Your task to perform on an android device: turn on data saver in the chrome app Image 0: 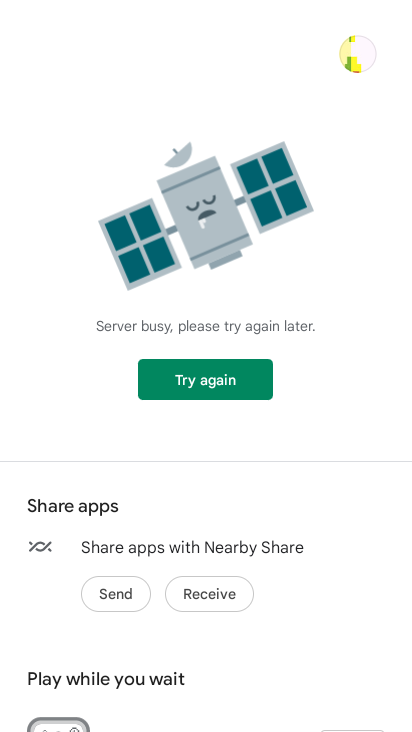
Step 0: press home button
Your task to perform on an android device: turn on data saver in the chrome app Image 1: 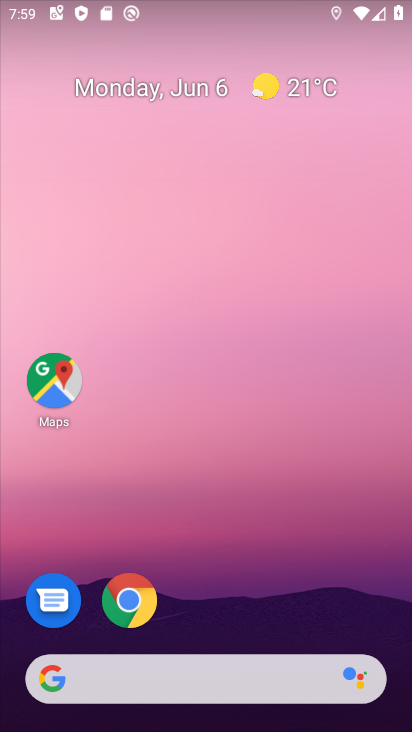
Step 1: click (128, 602)
Your task to perform on an android device: turn on data saver in the chrome app Image 2: 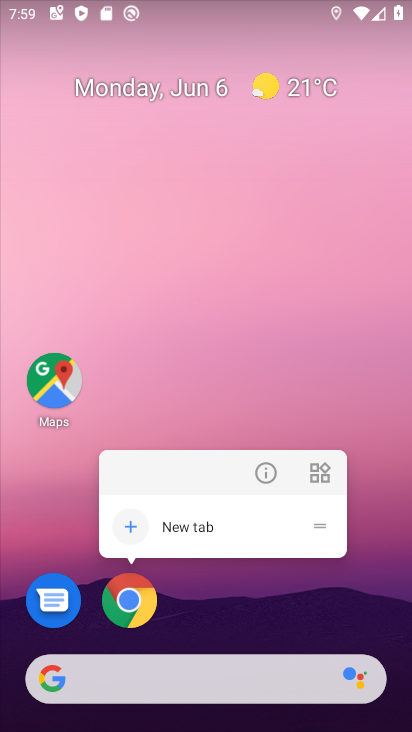
Step 2: click (128, 602)
Your task to perform on an android device: turn on data saver in the chrome app Image 3: 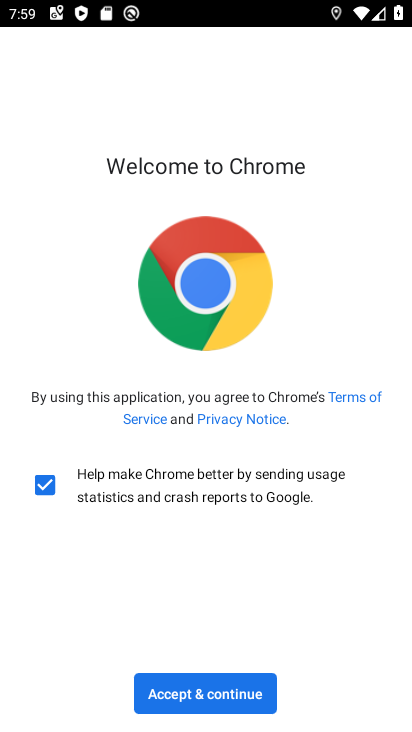
Step 3: click (204, 700)
Your task to perform on an android device: turn on data saver in the chrome app Image 4: 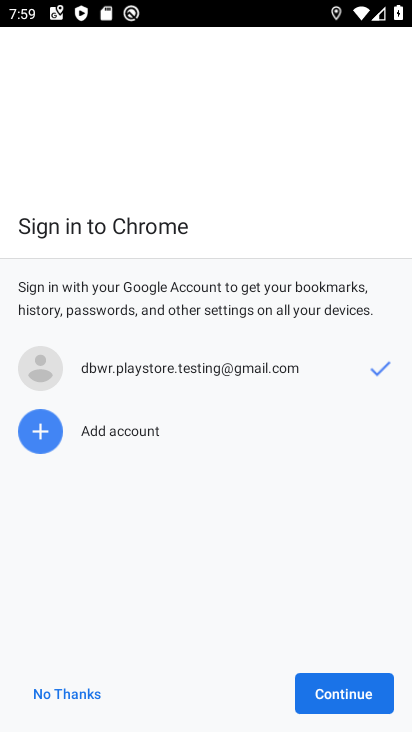
Step 4: click (354, 689)
Your task to perform on an android device: turn on data saver in the chrome app Image 5: 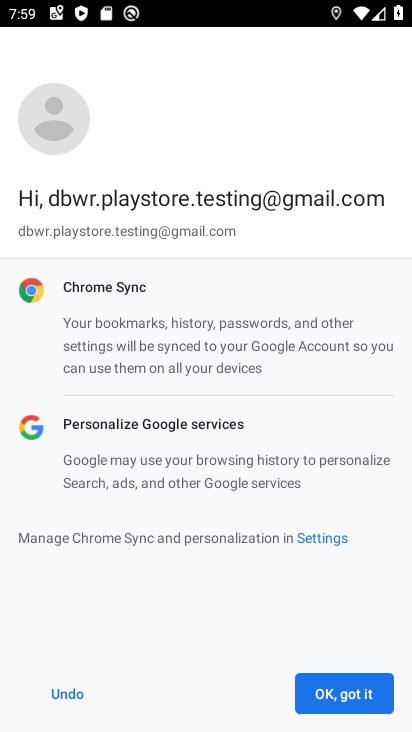
Step 5: click (345, 685)
Your task to perform on an android device: turn on data saver in the chrome app Image 6: 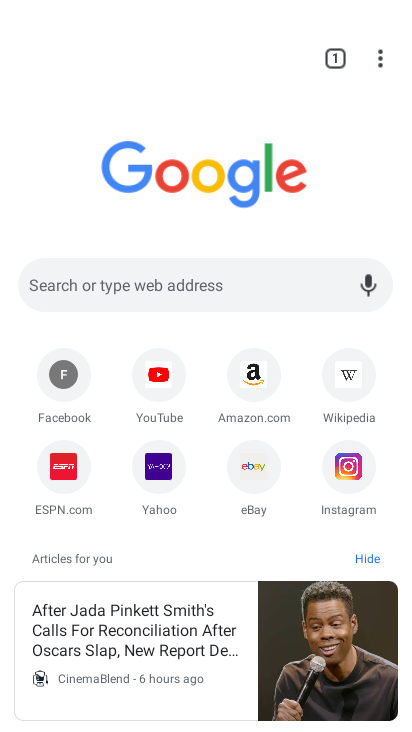
Step 6: click (379, 69)
Your task to perform on an android device: turn on data saver in the chrome app Image 7: 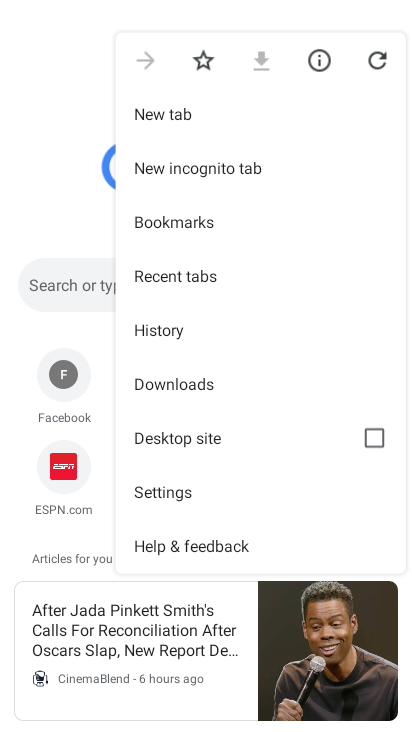
Step 7: drag from (254, 497) to (264, 391)
Your task to perform on an android device: turn on data saver in the chrome app Image 8: 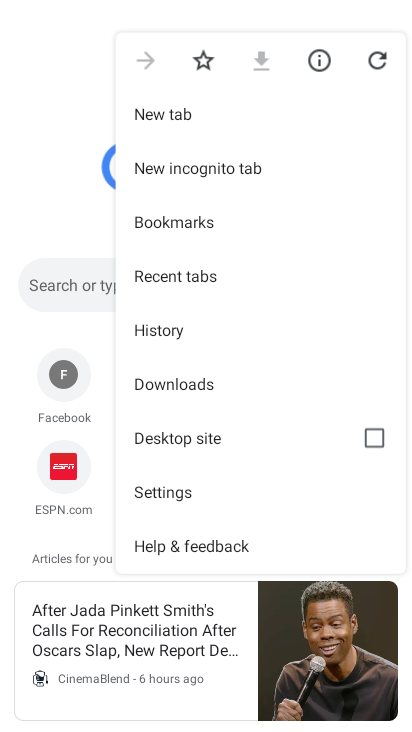
Step 8: click (172, 490)
Your task to perform on an android device: turn on data saver in the chrome app Image 9: 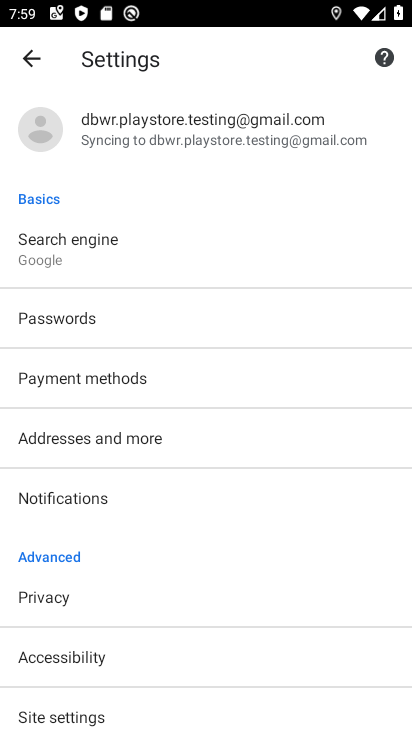
Step 9: drag from (174, 694) to (246, 255)
Your task to perform on an android device: turn on data saver in the chrome app Image 10: 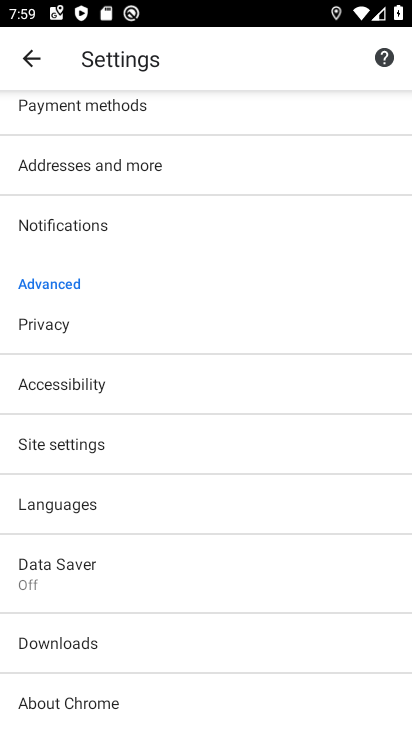
Step 10: click (64, 565)
Your task to perform on an android device: turn on data saver in the chrome app Image 11: 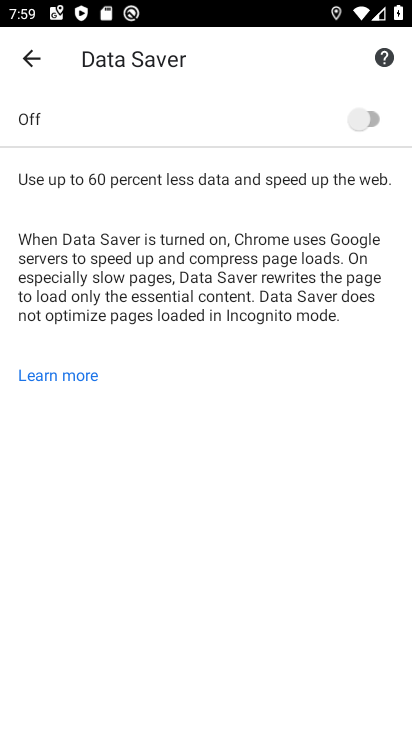
Step 11: click (375, 113)
Your task to perform on an android device: turn on data saver in the chrome app Image 12: 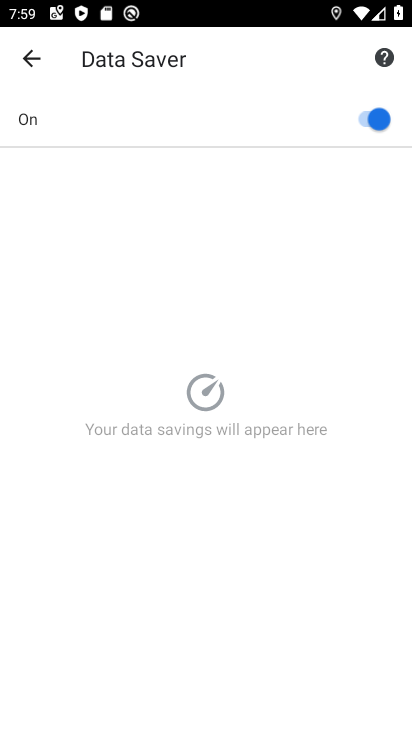
Step 12: task complete